Your task to perform on an android device: toggle notification dots Image 0: 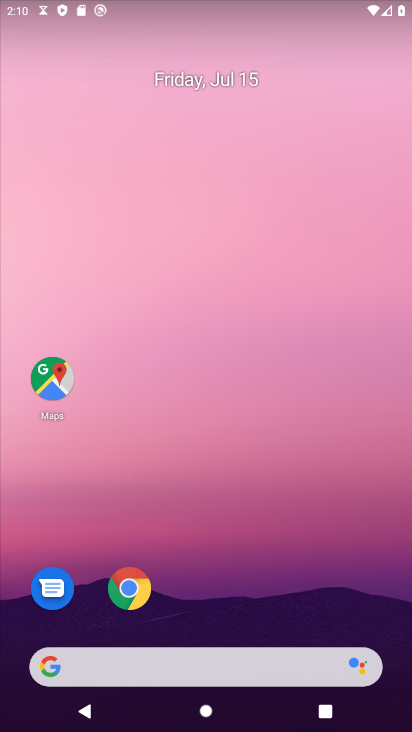
Step 0: drag from (249, 667) to (315, 196)
Your task to perform on an android device: toggle notification dots Image 1: 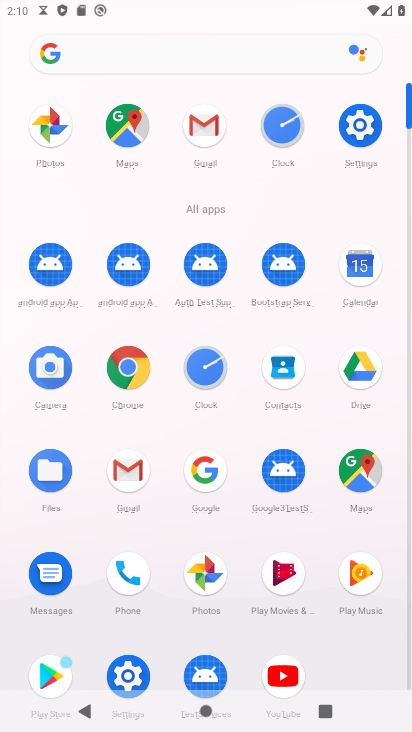
Step 1: click (365, 125)
Your task to perform on an android device: toggle notification dots Image 2: 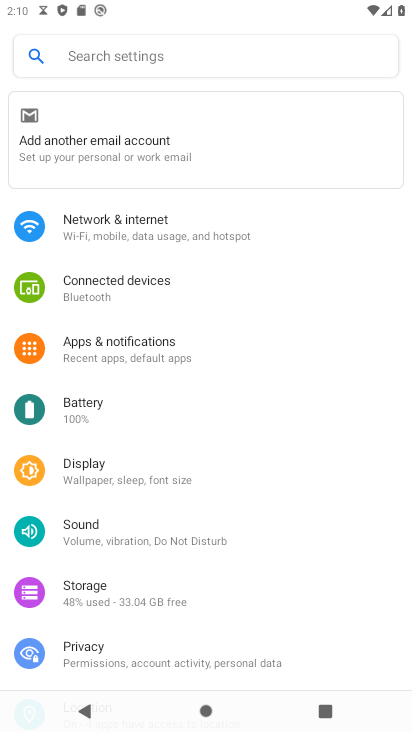
Step 2: click (129, 348)
Your task to perform on an android device: toggle notification dots Image 3: 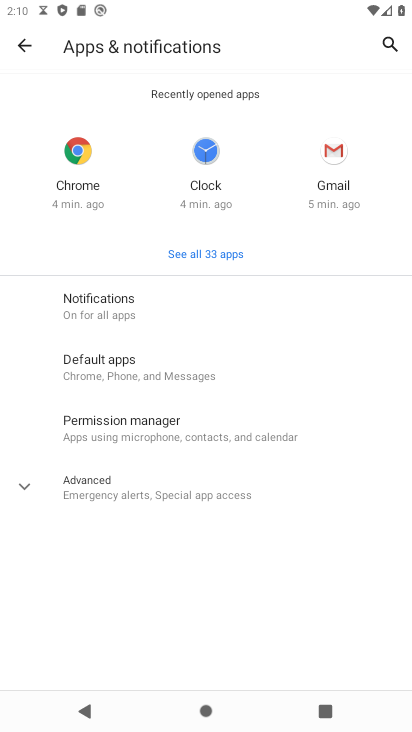
Step 3: click (121, 315)
Your task to perform on an android device: toggle notification dots Image 4: 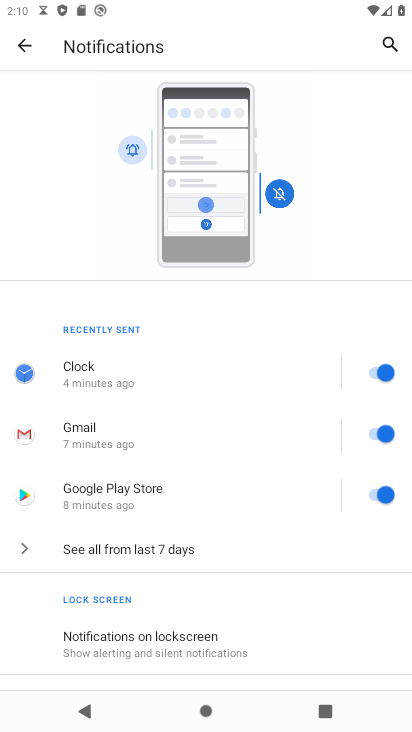
Step 4: drag from (222, 610) to (266, 164)
Your task to perform on an android device: toggle notification dots Image 5: 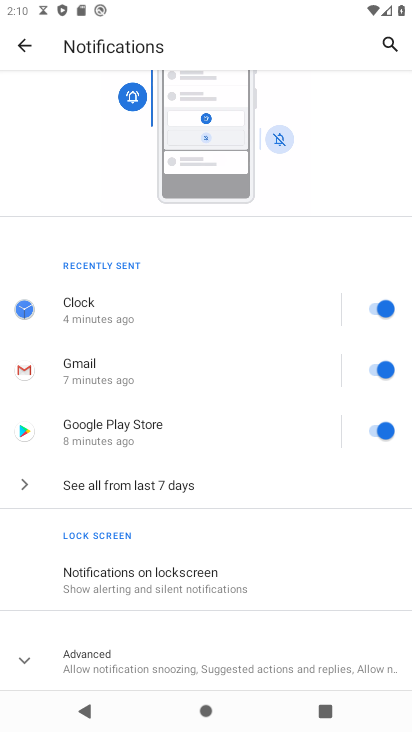
Step 5: click (157, 668)
Your task to perform on an android device: toggle notification dots Image 6: 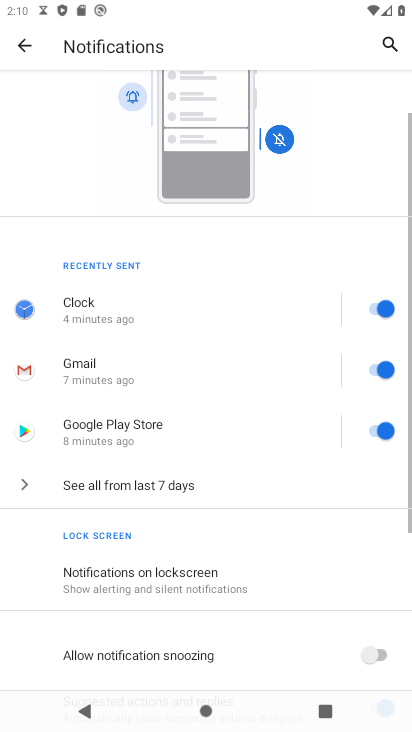
Step 6: drag from (239, 540) to (377, 133)
Your task to perform on an android device: toggle notification dots Image 7: 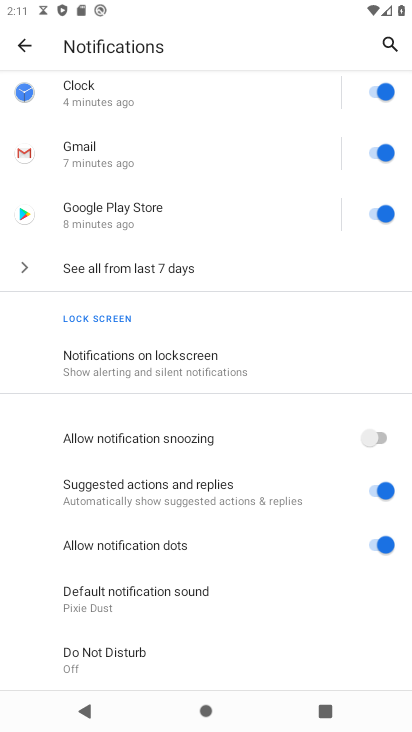
Step 7: click (378, 547)
Your task to perform on an android device: toggle notification dots Image 8: 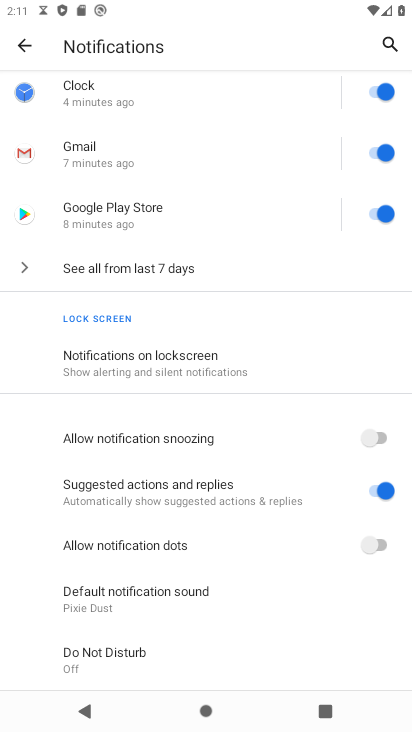
Step 8: task complete